Your task to perform on an android device: Go to calendar. Show me events next week Image 0: 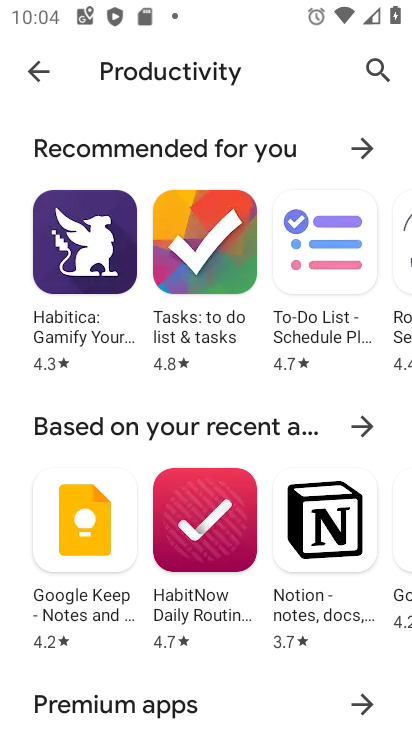
Step 0: press home button
Your task to perform on an android device: Go to calendar. Show me events next week Image 1: 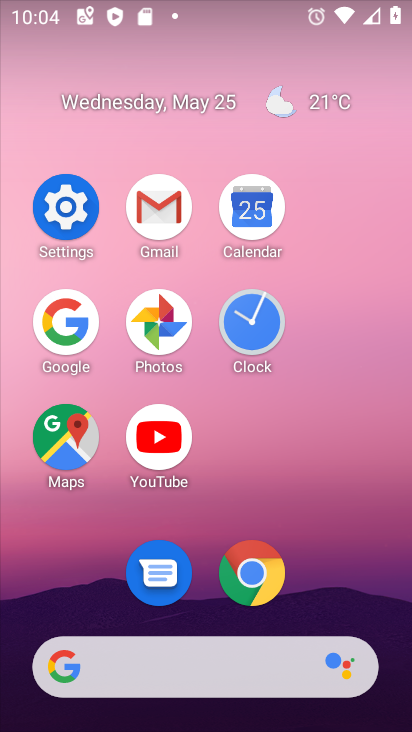
Step 1: click (240, 210)
Your task to perform on an android device: Go to calendar. Show me events next week Image 2: 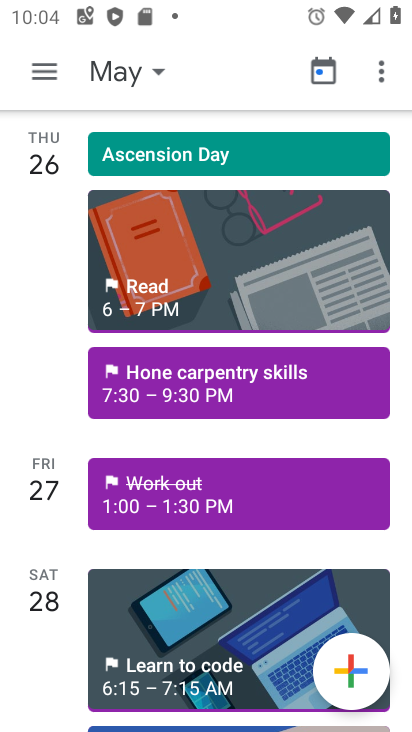
Step 2: click (124, 58)
Your task to perform on an android device: Go to calendar. Show me events next week Image 3: 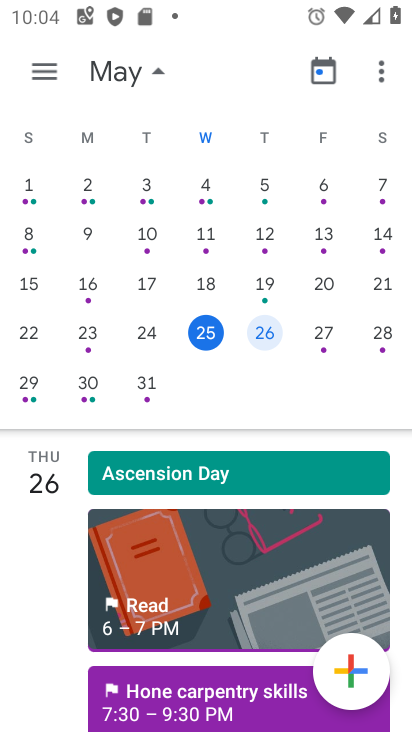
Step 3: click (33, 60)
Your task to perform on an android device: Go to calendar. Show me events next week Image 4: 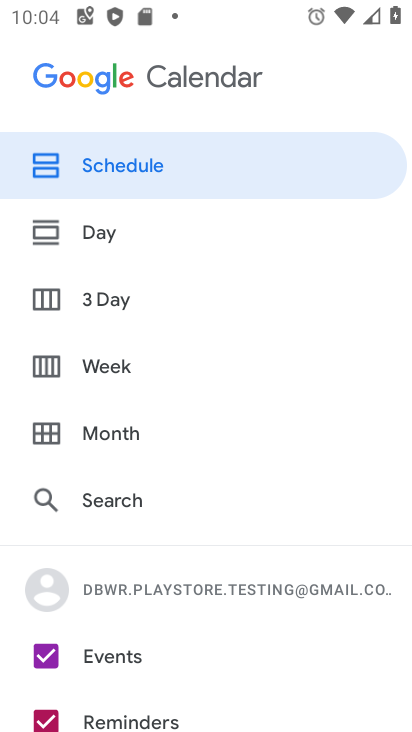
Step 4: click (168, 362)
Your task to perform on an android device: Go to calendar. Show me events next week Image 5: 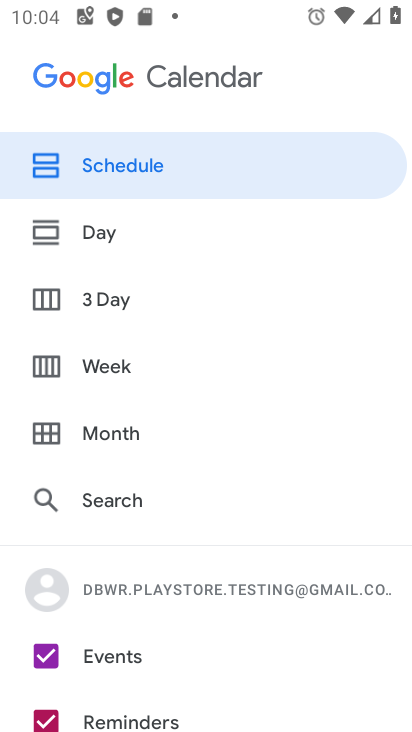
Step 5: click (116, 376)
Your task to perform on an android device: Go to calendar. Show me events next week Image 6: 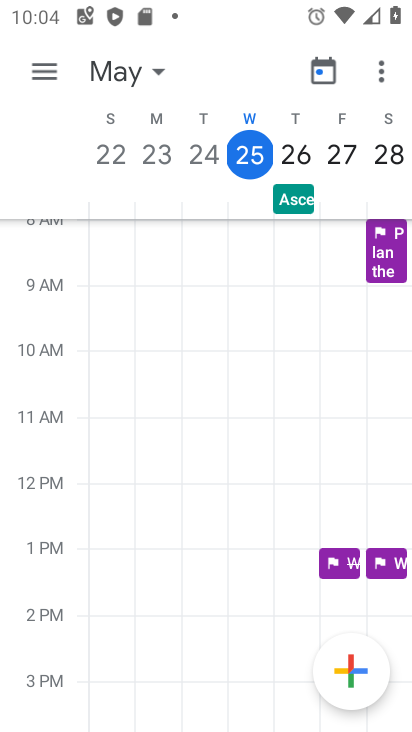
Step 6: task complete